Your task to perform on an android device: Open settings on Google Maps Image 0: 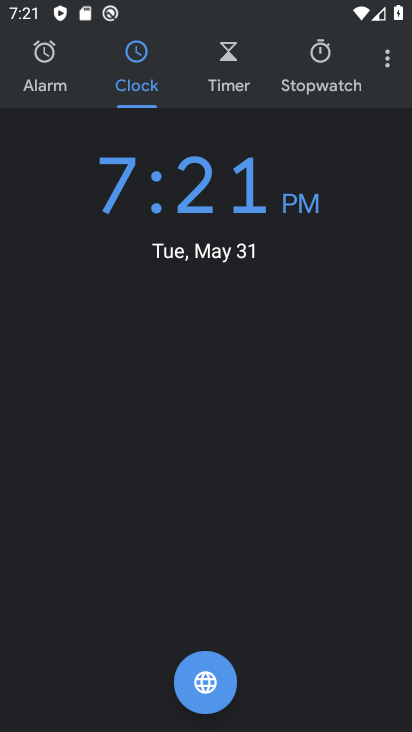
Step 0: press home button
Your task to perform on an android device: Open settings on Google Maps Image 1: 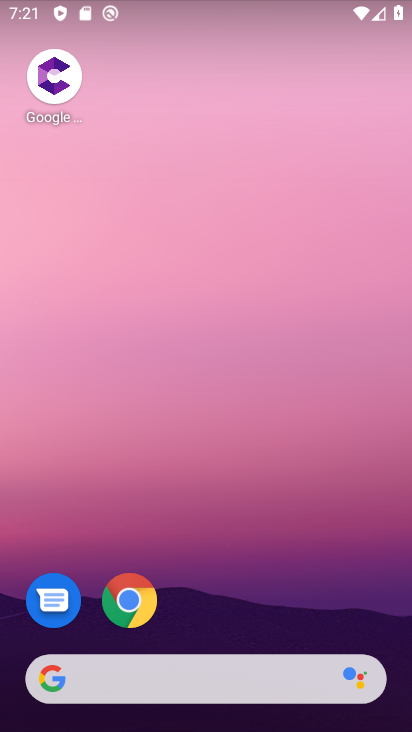
Step 1: drag from (218, 648) to (340, 152)
Your task to perform on an android device: Open settings on Google Maps Image 2: 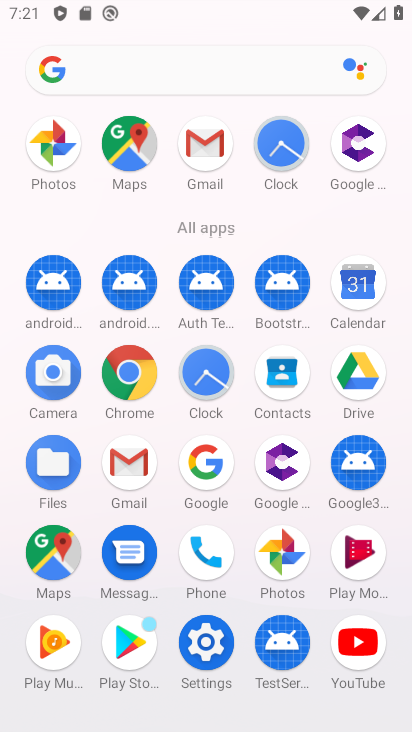
Step 2: click (133, 148)
Your task to perform on an android device: Open settings on Google Maps Image 3: 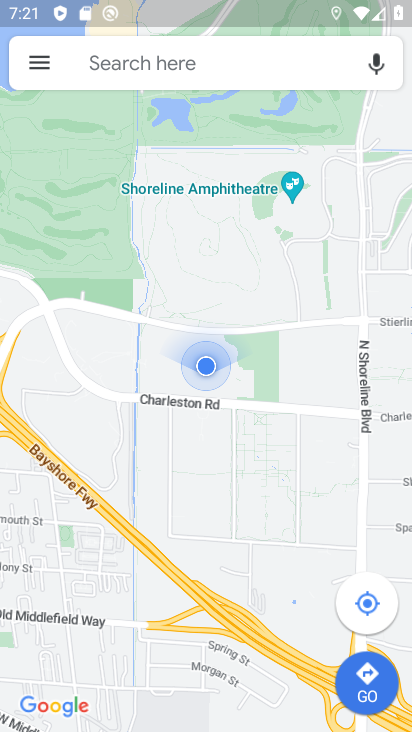
Step 3: click (45, 62)
Your task to perform on an android device: Open settings on Google Maps Image 4: 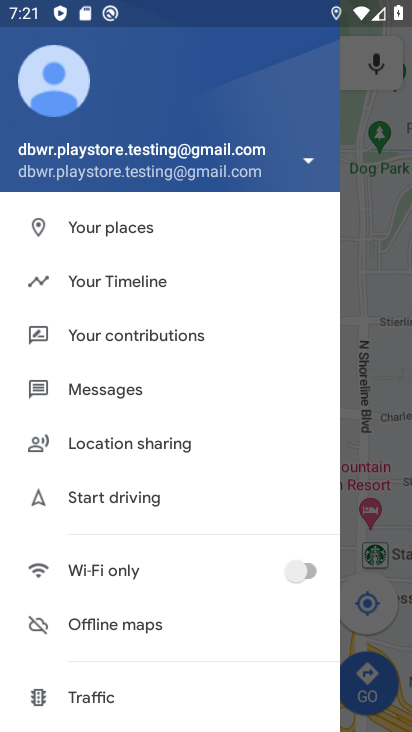
Step 4: drag from (68, 299) to (47, 17)
Your task to perform on an android device: Open settings on Google Maps Image 5: 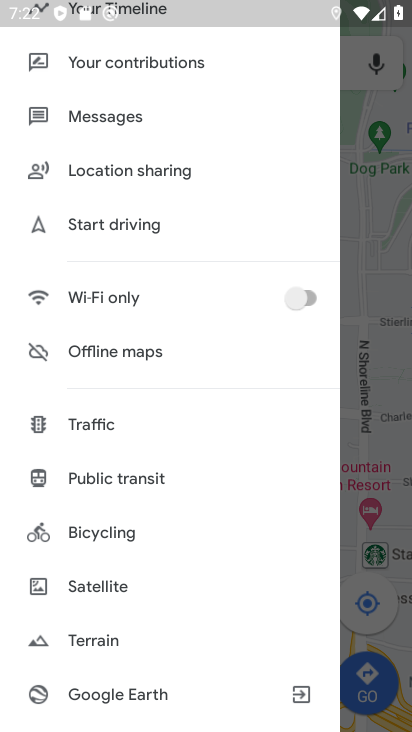
Step 5: drag from (243, 571) to (257, 74)
Your task to perform on an android device: Open settings on Google Maps Image 6: 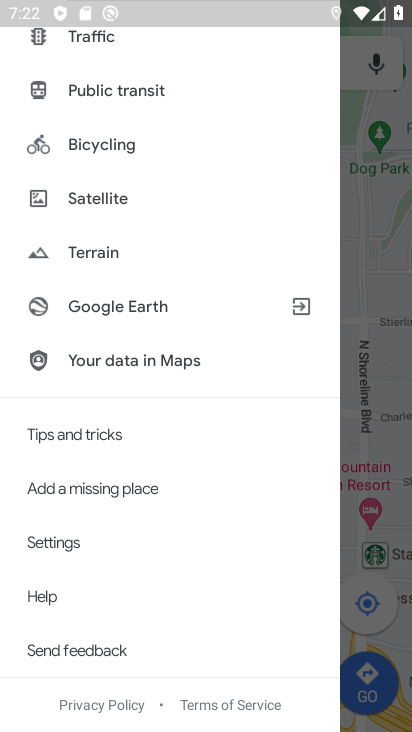
Step 6: click (58, 545)
Your task to perform on an android device: Open settings on Google Maps Image 7: 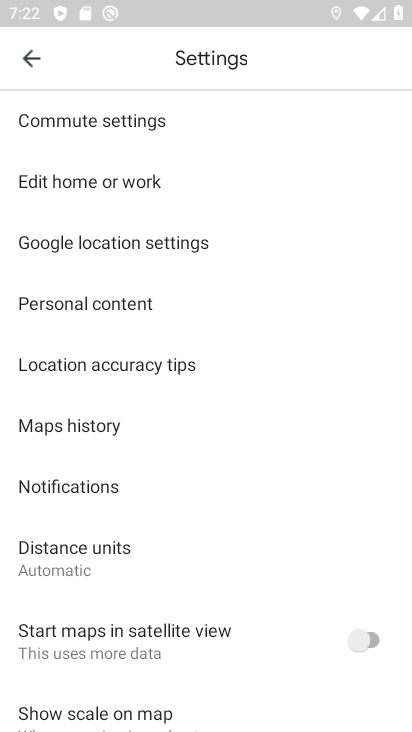
Step 7: task complete